Your task to perform on an android device: Search for flights from NYC to Barcelona Image 0: 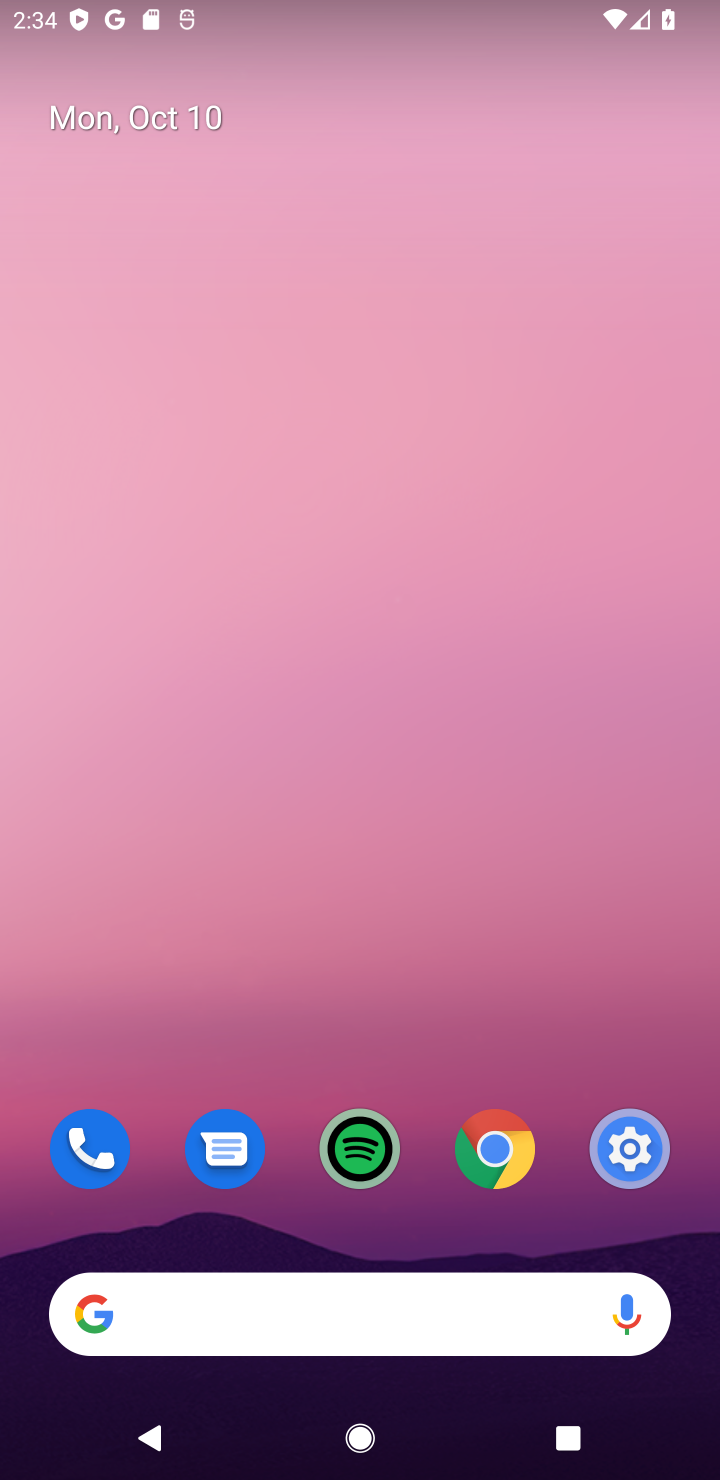
Step 0: click (365, 1327)
Your task to perform on an android device: Search for flights from NYC to Barcelona Image 1: 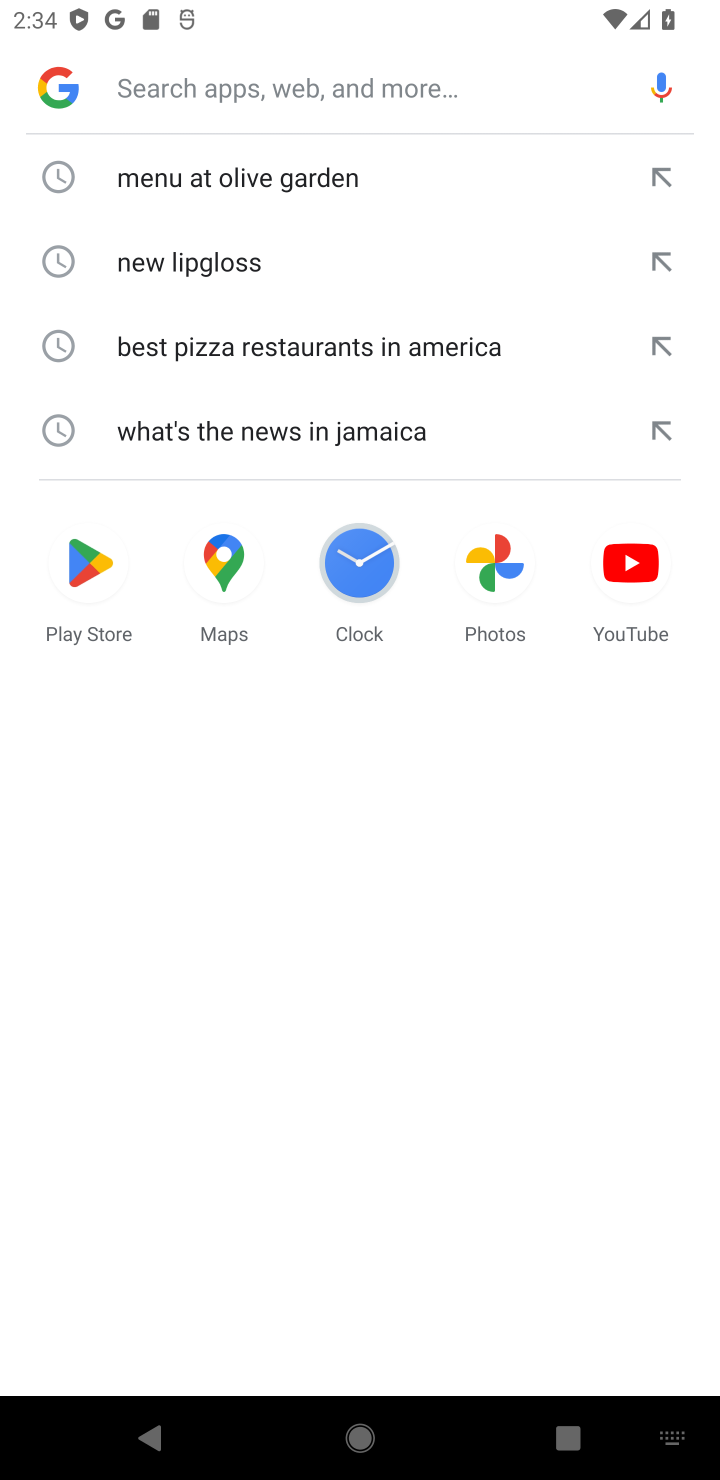
Step 1: type "flights from NYC to Barcelona"
Your task to perform on an android device: Search for flights from NYC to Barcelona Image 2: 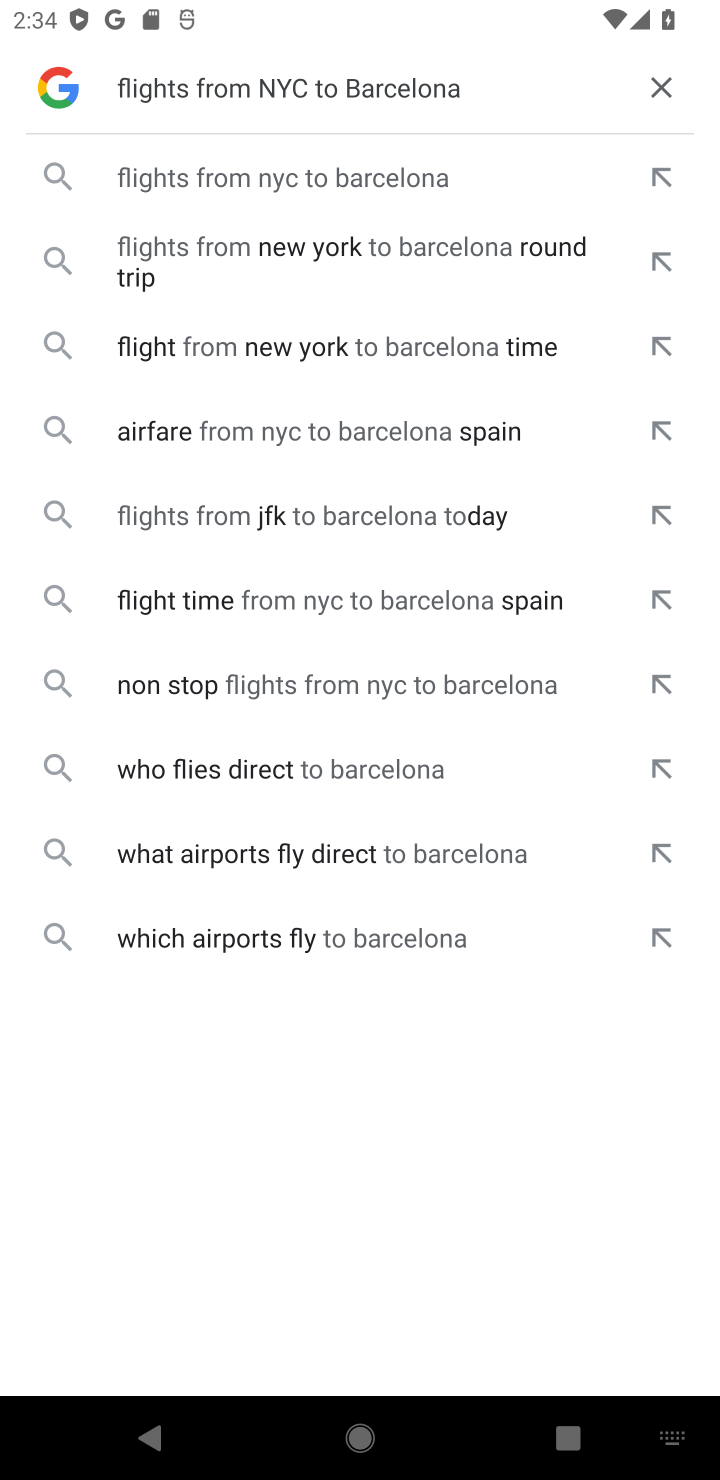
Step 2: click (293, 195)
Your task to perform on an android device: Search for flights from NYC to Barcelona Image 3: 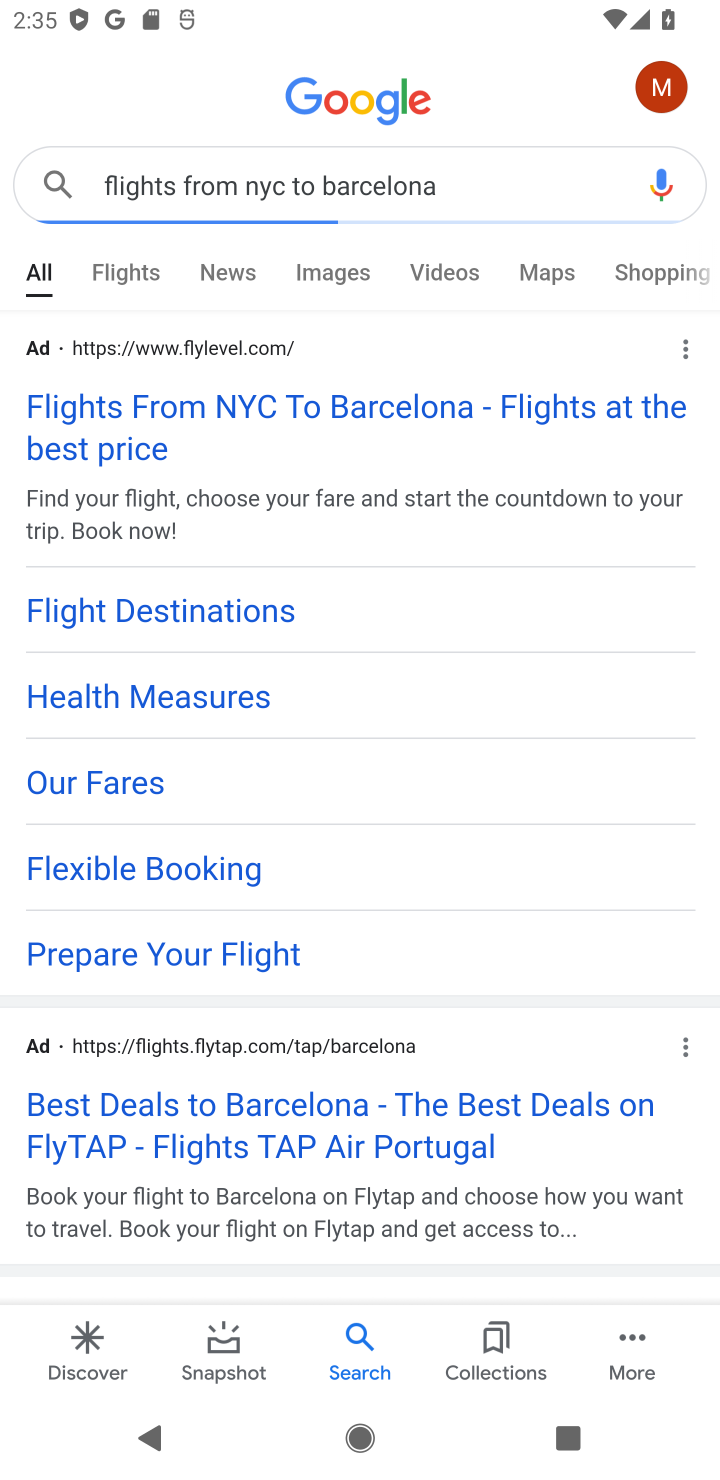
Step 3: task complete